Your task to perform on an android device: Open Google Maps Image 0: 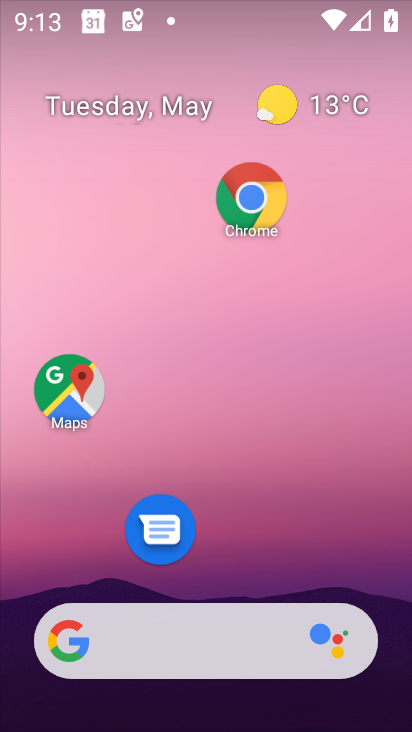
Step 0: click (79, 404)
Your task to perform on an android device: Open Google Maps Image 1: 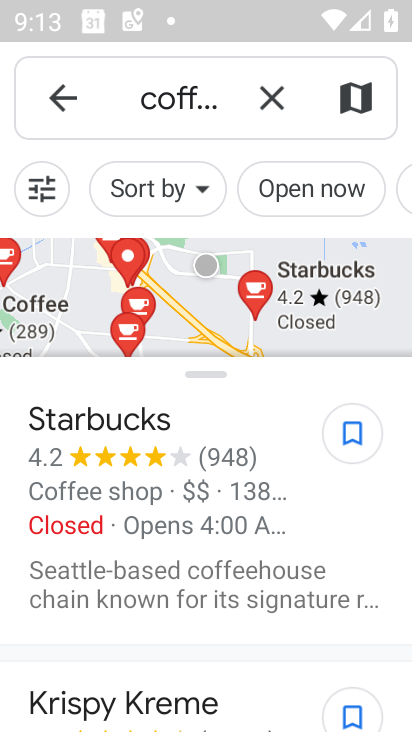
Step 1: task complete